Your task to perform on an android device: Open privacy settings Image 0: 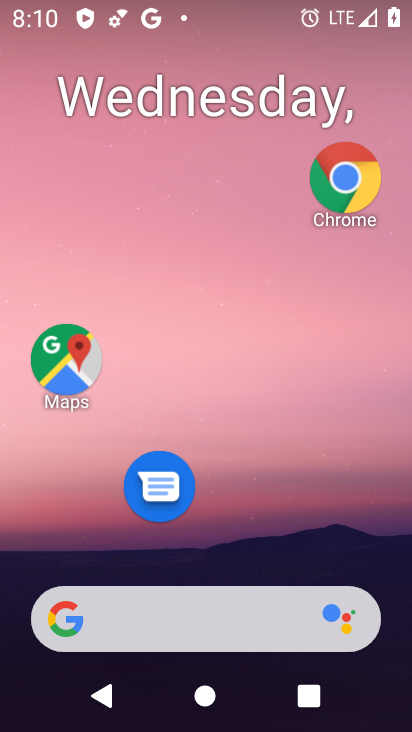
Step 0: drag from (252, 600) to (339, 0)
Your task to perform on an android device: Open privacy settings Image 1: 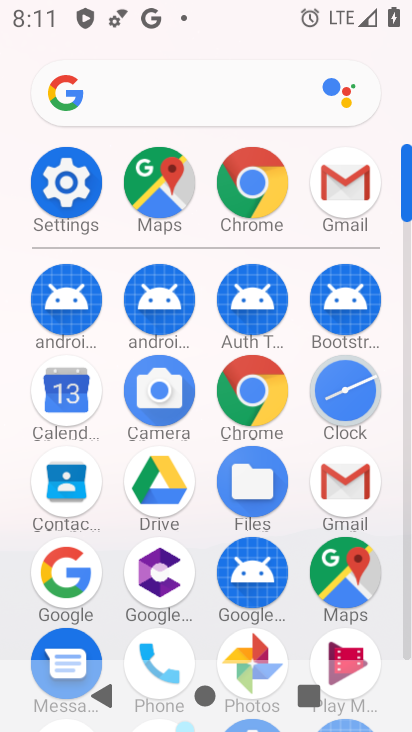
Step 1: click (79, 205)
Your task to perform on an android device: Open privacy settings Image 2: 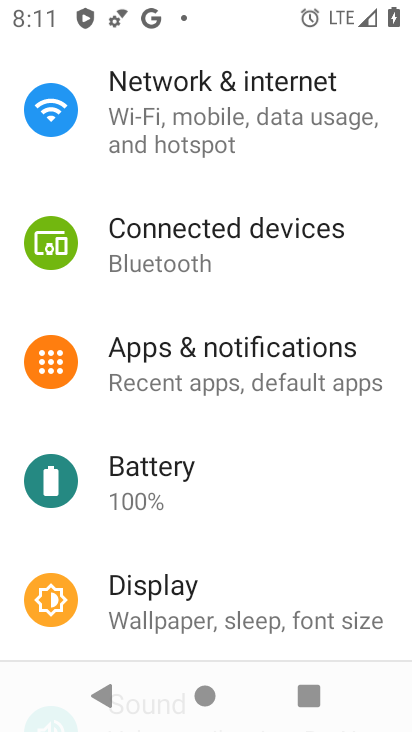
Step 2: drag from (218, 285) to (273, 300)
Your task to perform on an android device: Open privacy settings Image 3: 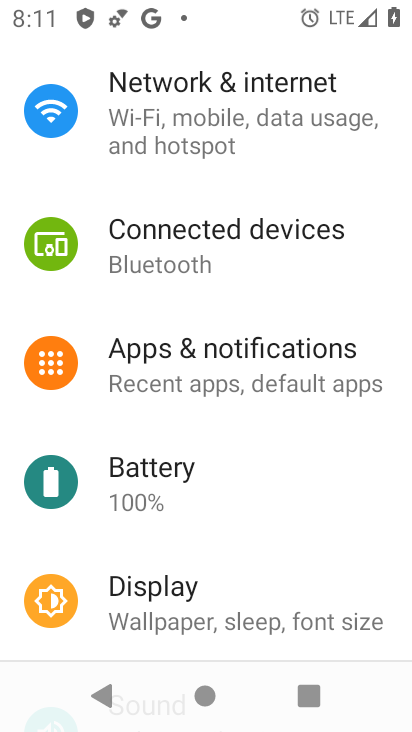
Step 3: drag from (228, 526) to (309, 144)
Your task to perform on an android device: Open privacy settings Image 4: 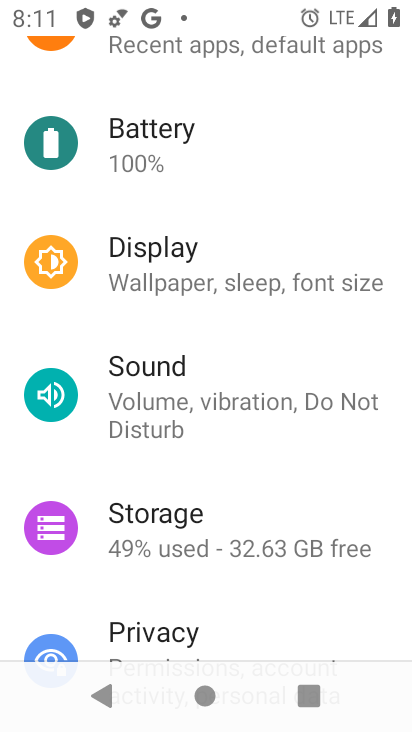
Step 4: drag from (140, 600) to (183, 266)
Your task to perform on an android device: Open privacy settings Image 5: 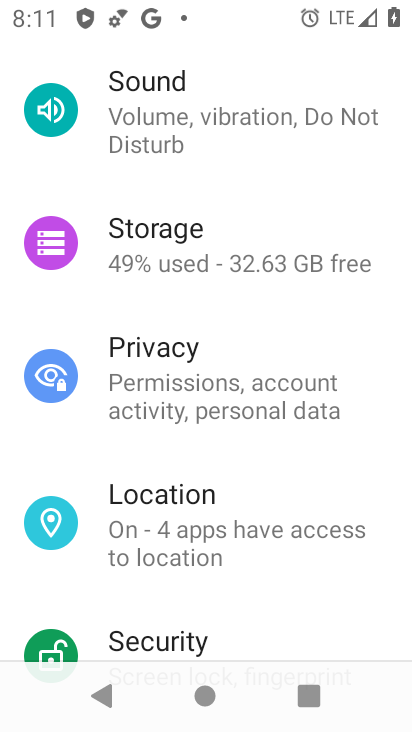
Step 5: click (264, 394)
Your task to perform on an android device: Open privacy settings Image 6: 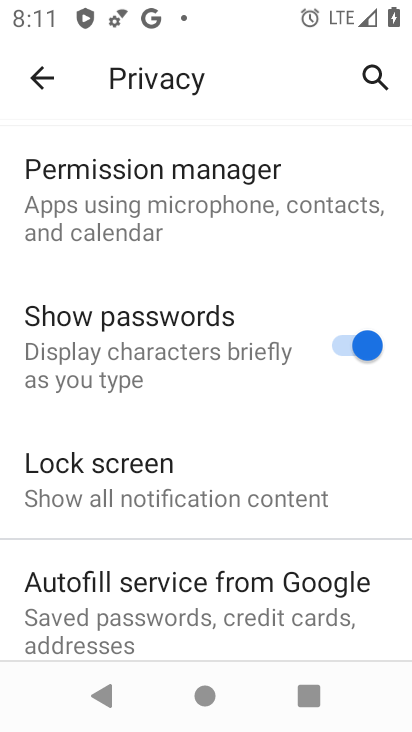
Step 6: task complete